Your task to perform on an android device: Search for seafood restaurants on Google Maps Image 0: 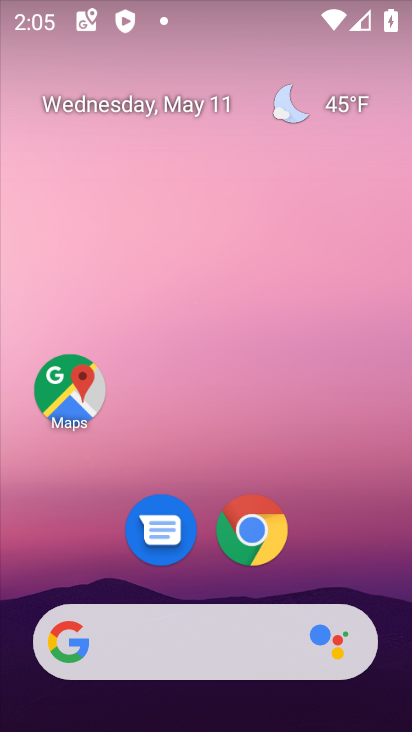
Step 0: click (255, 246)
Your task to perform on an android device: Search for seafood restaurants on Google Maps Image 1: 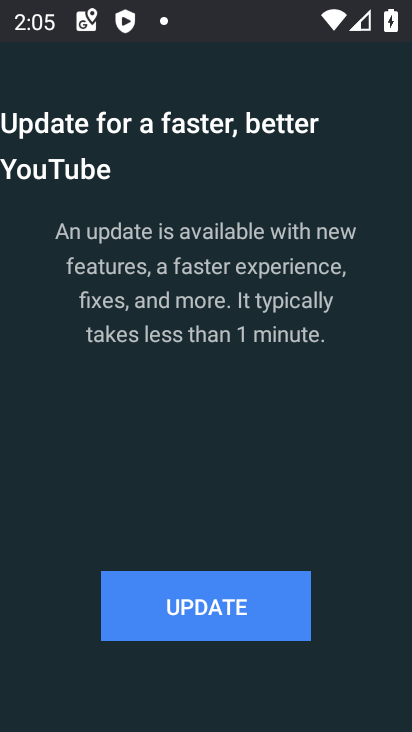
Step 1: drag from (299, 554) to (96, 156)
Your task to perform on an android device: Search for seafood restaurants on Google Maps Image 2: 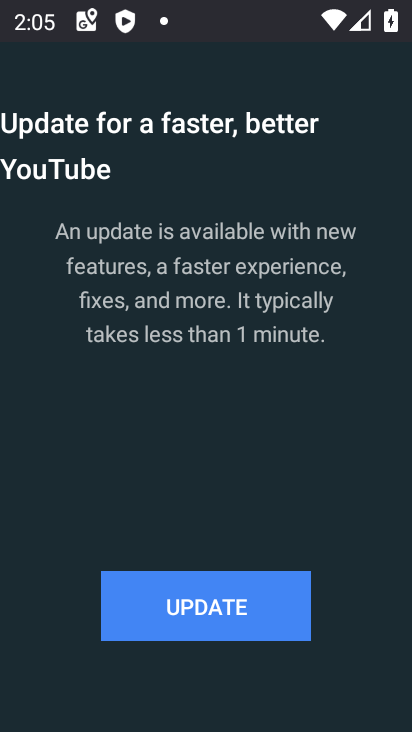
Step 2: press home button
Your task to perform on an android device: Search for seafood restaurants on Google Maps Image 3: 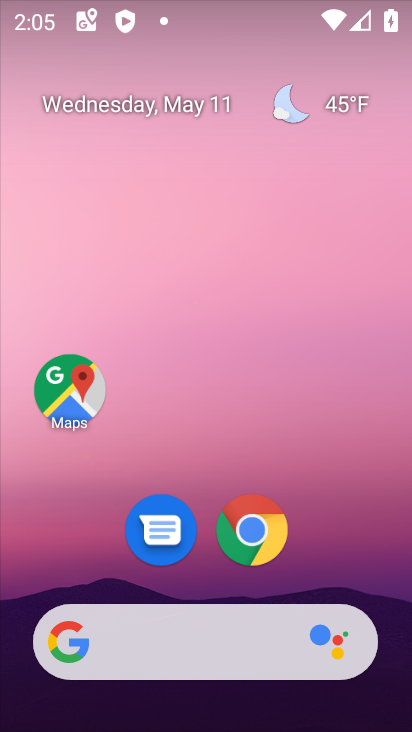
Step 3: drag from (331, 603) to (109, 80)
Your task to perform on an android device: Search for seafood restaurants on Google Maps Image 4: 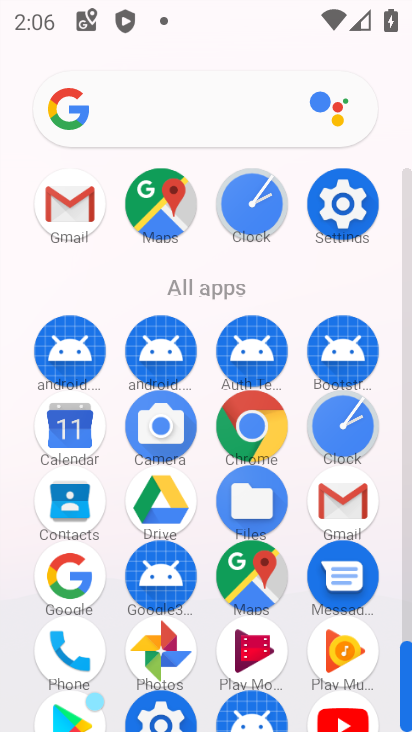
Step 4: drag from (289, 638) to (243, 270)
Your task to perform on an android device: Search for seafood restaurants on Google Maps Image 5: 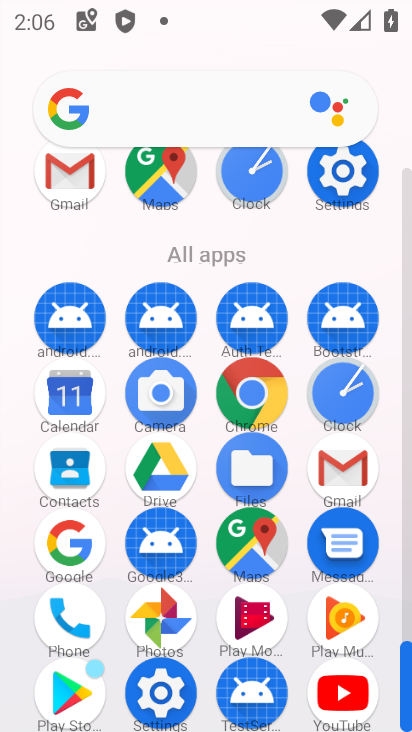
Step 5: click (237, 539)
Your task to perform on an android device: Search for seafood restaurants on Google Maps Image 6: 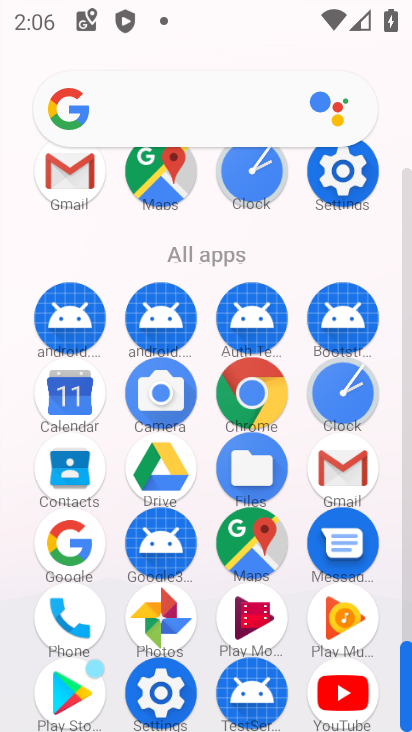
Step 6: click (237, 539)
Your task to perform on an android device: Search for seafood restaurants on Google Maps Image 7: 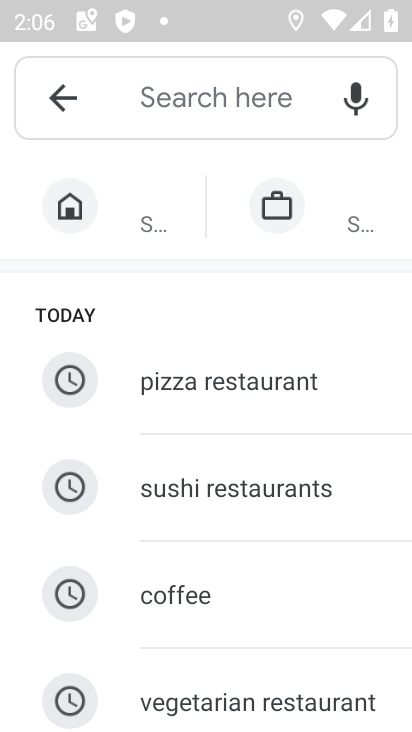
Step 7: click (146, 84)
Your task to perform on an android device: Search for seafood restaurants on Google Maps Image 8: 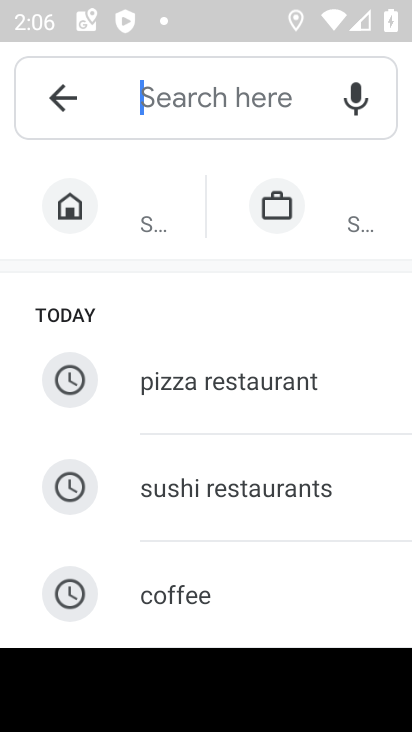
Step 8: type "seafood restaurants"
Your task to perform on an android device: Search for seafood restaurants on Google Maps Image 9: 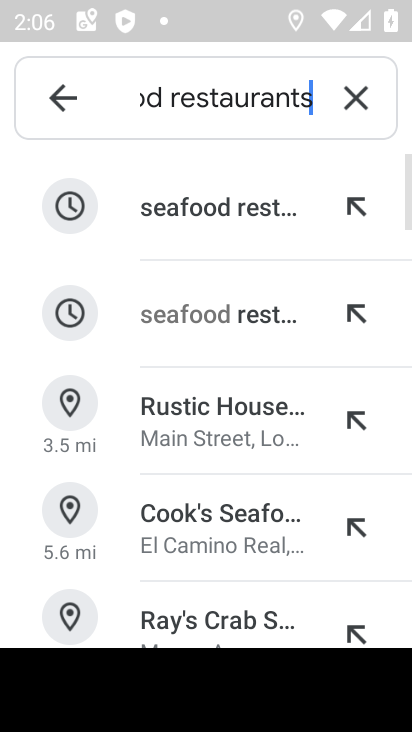
Step 9: click (221, 213)
Your task to perform on an android device: Search for seafood restaurants on Google Maps Image 10: 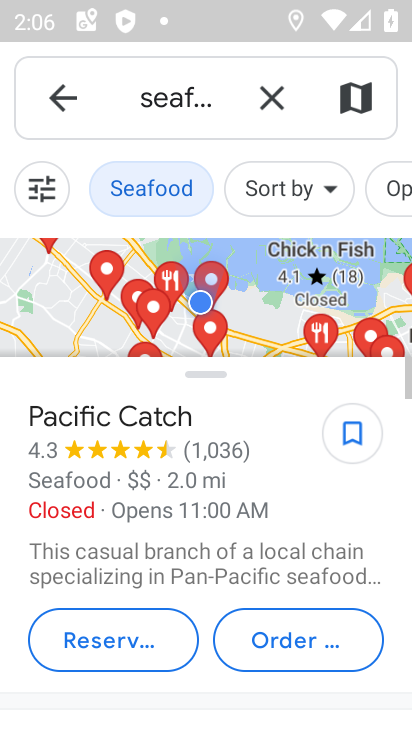
Step 10: task complete